Your task to perform on an android device: Open Chrome and go to settings Image 0: 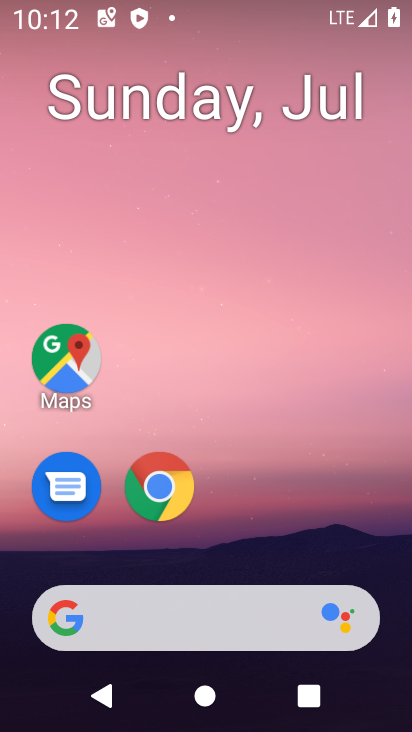
Step 0: press home button
Your task to perform on an android device: Open Chrome and go to settings Image 1: 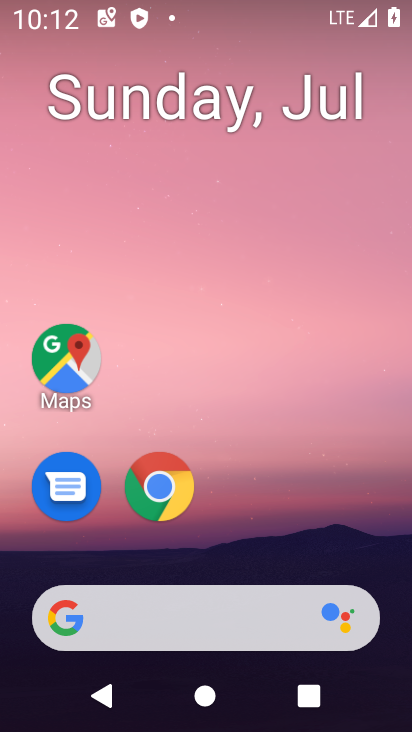
Step 1: drag from (343, 544) to (357, 146)
Your task to perform on an android device: Open Chrome and go to settings Image 2: 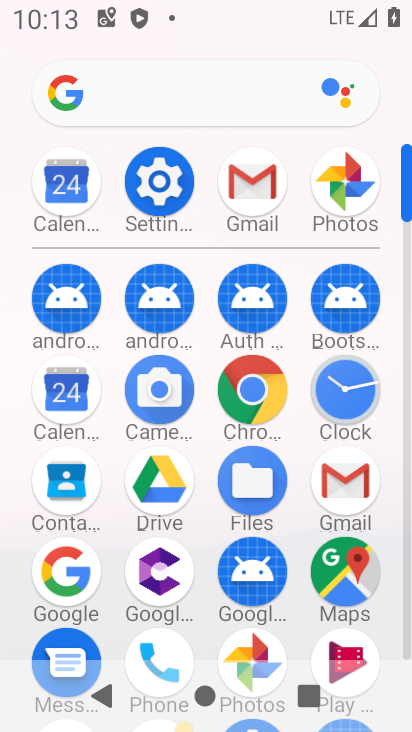
Step 2: click (257, 397)
Your task to perform on an android device: Open Chrome and go to settings Image 3: 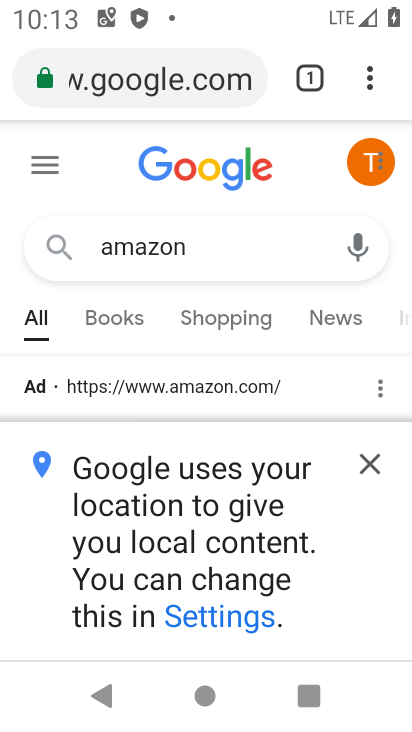
Step 3: click (368, 85)
Your task to perform on an android device: Open Chrome and go to settings Image 4: 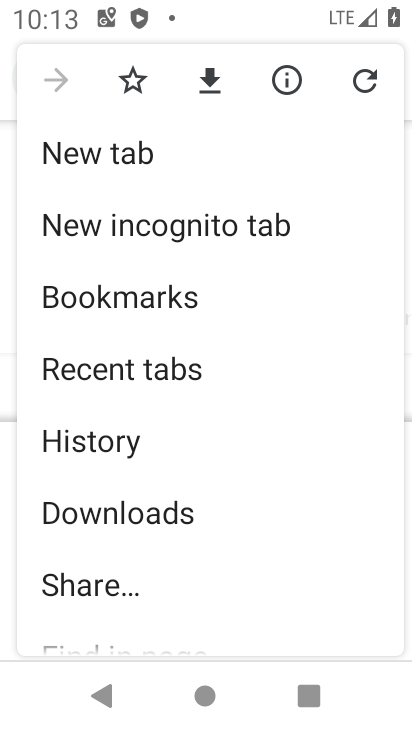
Step 4: drag from (303, 532) to (307, 433)
Your task to perform on an android device: Open Chrome and go to settings Image 5: 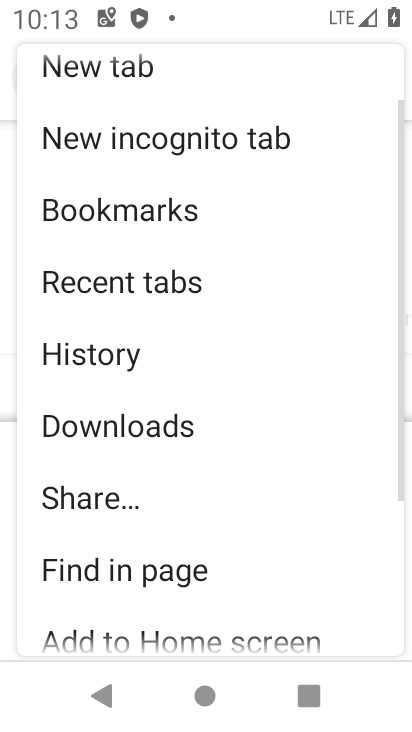
Step 5: drag from (304, 567) to (295, 424)
Your task to perform on an android device: Open Chrome and go to settings Image 6: 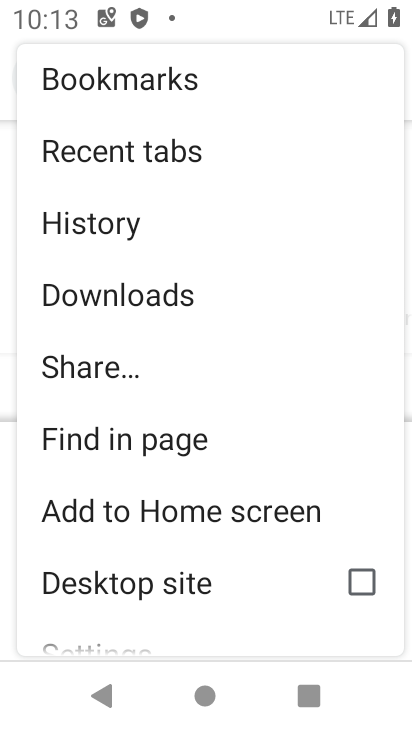
Step 6: drag from (256, 574) to (252, 378)
Your task to perform on an android device: Open Chrome and go to settings Image 7: 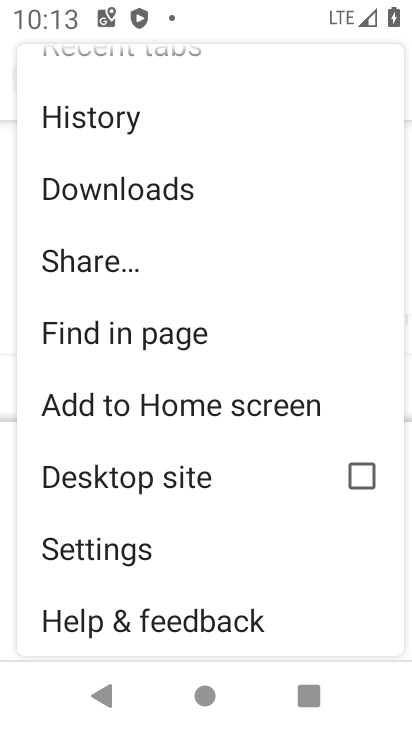
Step 7: click (224, 562)
Your task to perform on an android device: Open Chrome and go to settings Image 8: 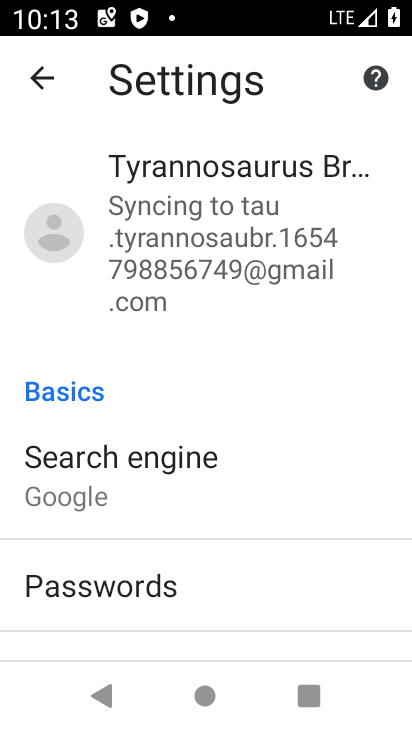
Step 8: task complete